Your task to perform on an android device: move an email to a new category in the gmail app Image 0: 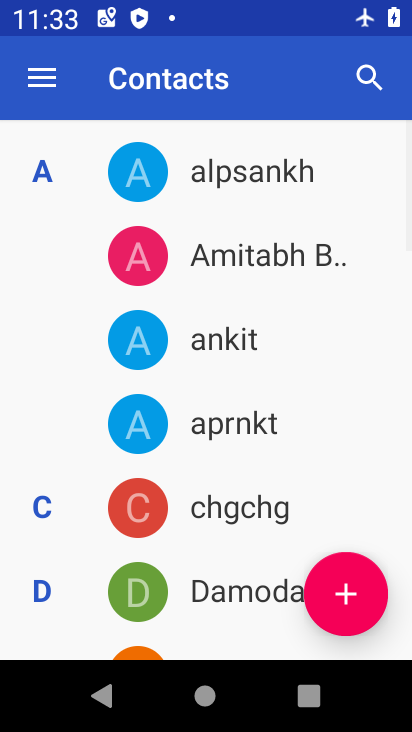
Step 0: press home button
Your task to perform on an android device: move an email to a new category in the gmail app Image 1: 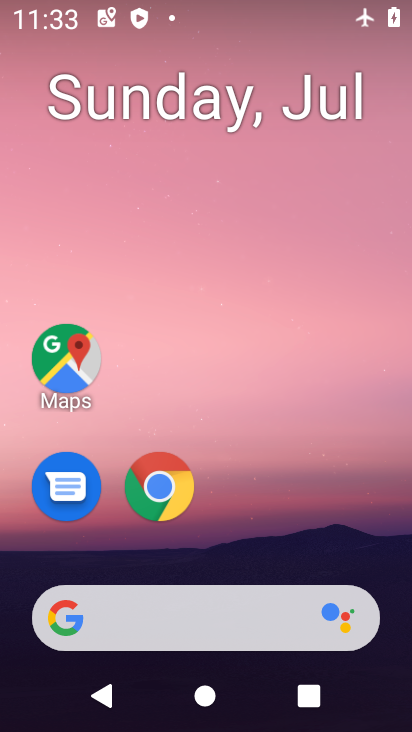
Step 1: drag from (384, 559) to (409, 107)
Your task to perform on an android device: move an email to a new category in the gmail app Image 2: 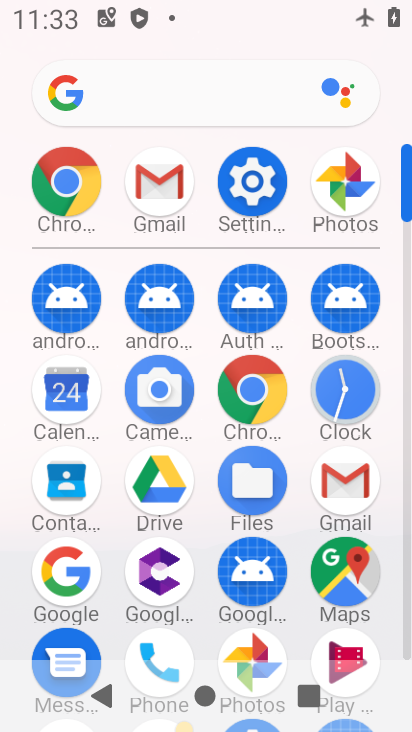
Step 2: click (349, 476)
Your task to perform on an android device: move an email to a new category in the gmail app Image 3: 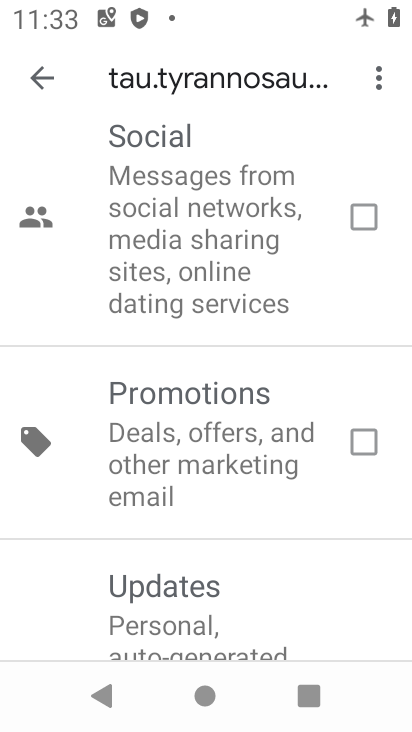
Step 3: press back button
Your task to perform on an android device: move an email to a new category in the gmail app Image 4: 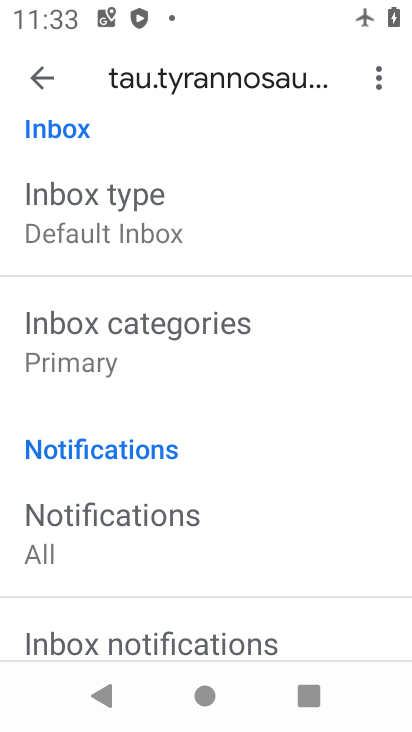
Step 4: press back button
Your task to perform on an android device: move an email to a new category in the gmail app Image 5: 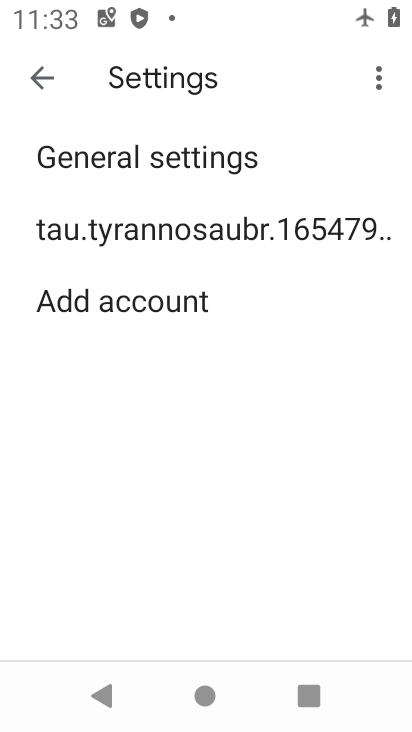
Step 5: press back button
Your task to perform on an android device: move an email to a new category in the gmail app Image 6: 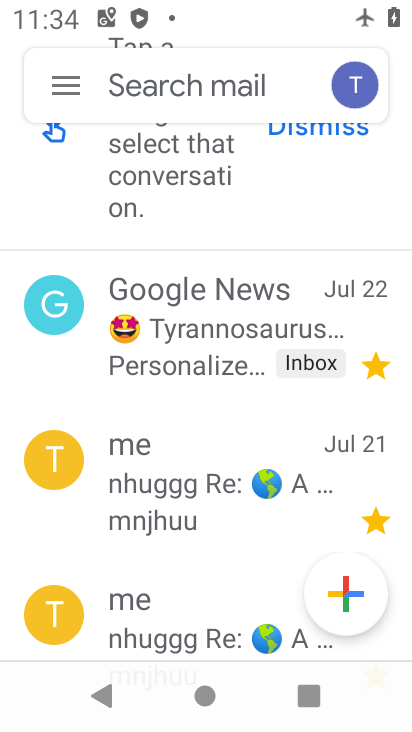
Step 6: click (225, 344)
Your task to perform on an android device: move an email to a new category in the gmail app Image 7: 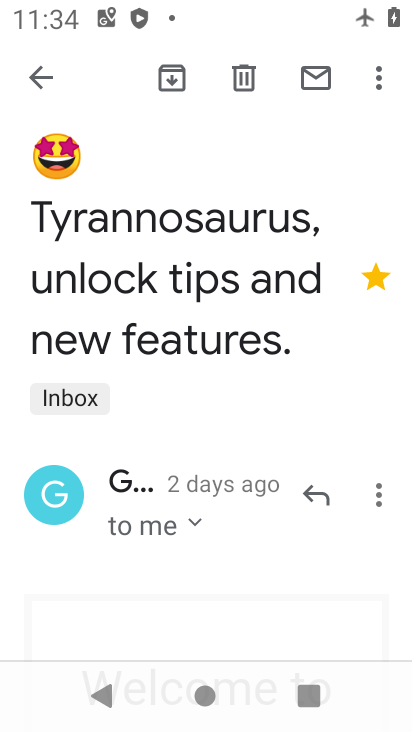
Step 7: click (375, 84)
Your task to perform on an android device: move an email to a new category in the gmail app Image 8: 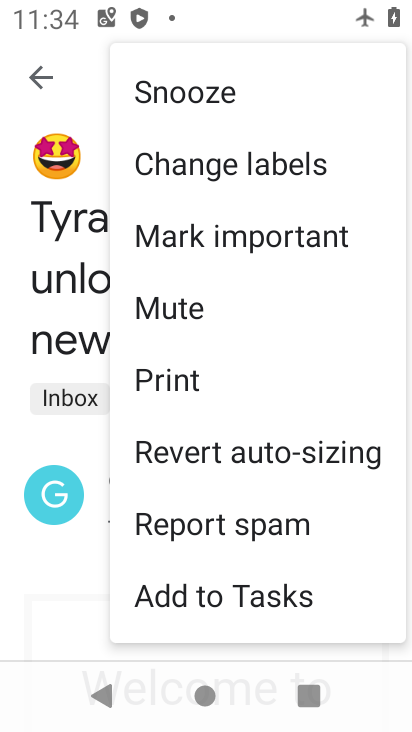
Step 8: click (58, 561)
Your task to perform on an android device: move an email to a new category in the gmail app Image 9: 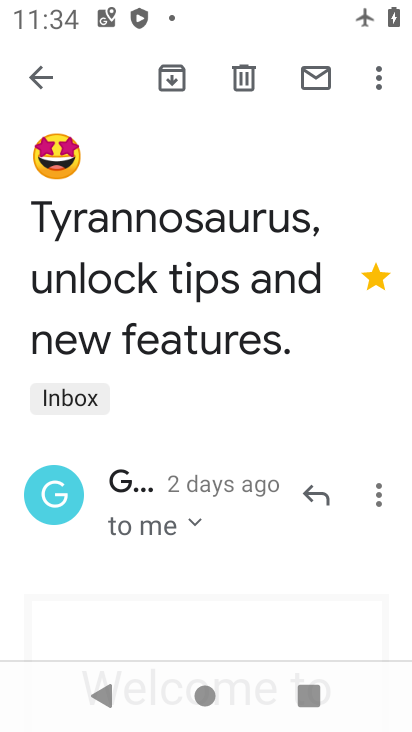
Step 9: click (381, 498)
Your task to perform on an android device: move an email to a new category in the gmail app Image 10: 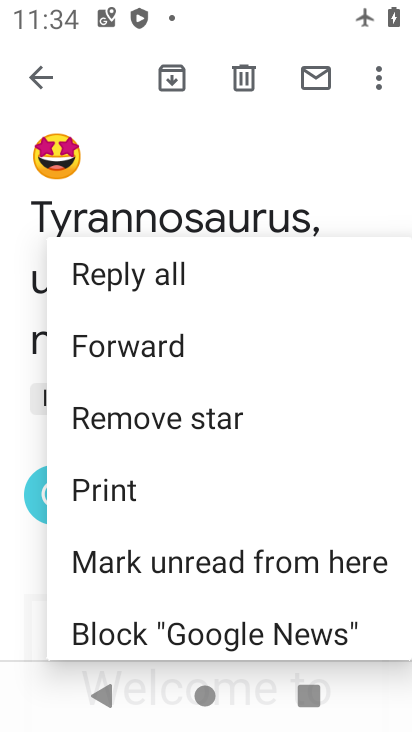
Step 10: click (23, 550)
Your task to perform on an android device: move an email to a new category in the gmail app Image 11: 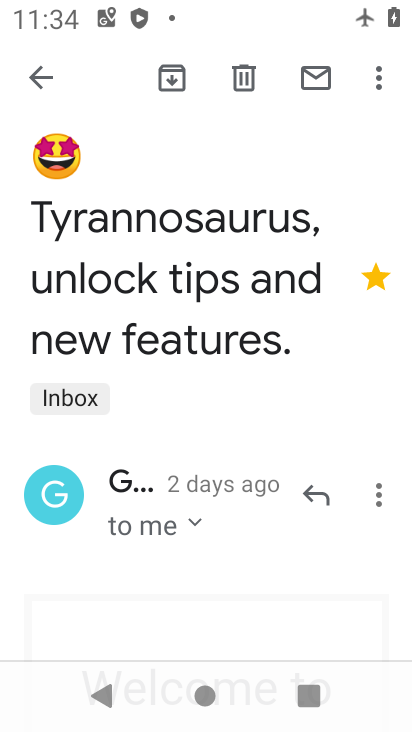
Step 11: click (379, 87)
Your task to perform on an android device: move an email to a new category in the gmail app Image 12: 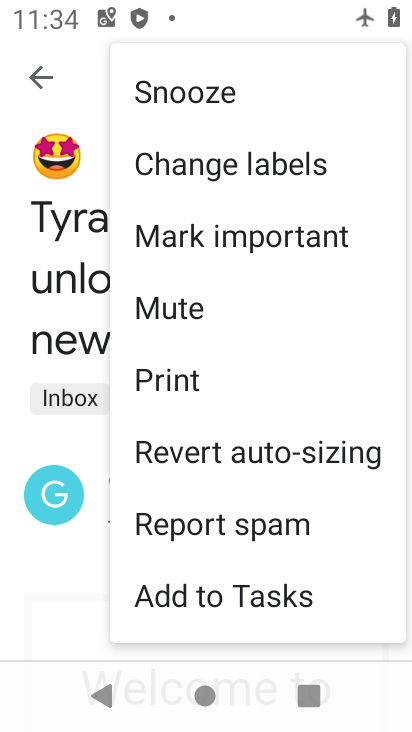
Step 12: drag from (314, 378) to (307, 261)
Your task to perform on an android device: move an email to a new category in the gmail app Image 13: 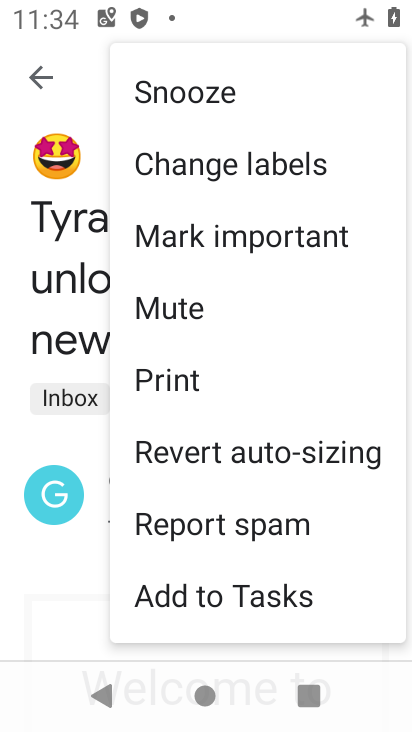
Step 13: click (63, 570)
Your task to perform on an android device: move an email to a new category in the gmail app Image 14: 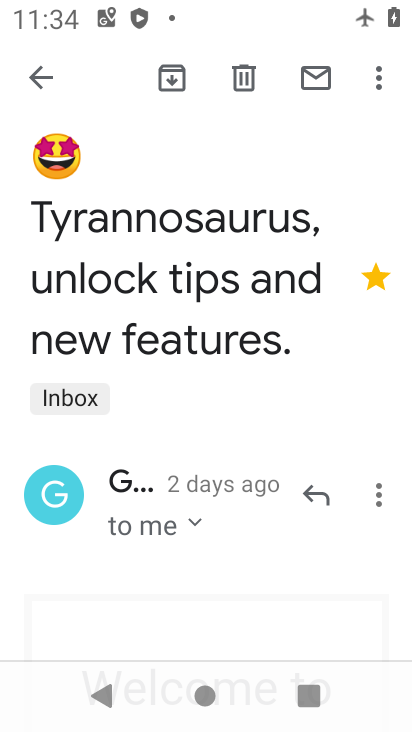
Step 14: click (27, 75)
Your task to perform on an android device: move an email to a new category in the gmail app Image 15: 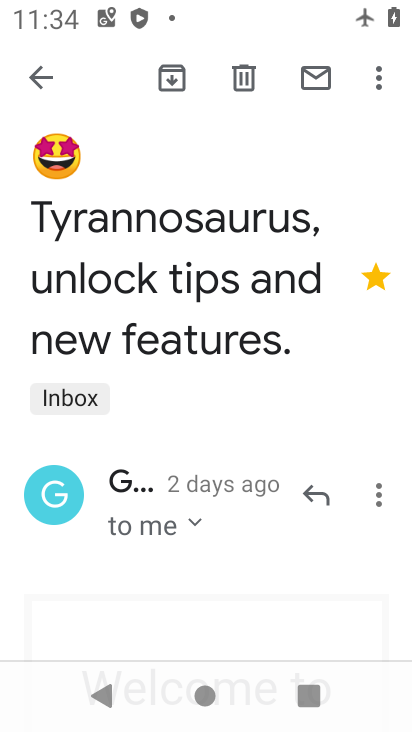
Step 15: click (41, 75)
Your task to perform on an android device: move an email to a new category in the gmail app Image 16: 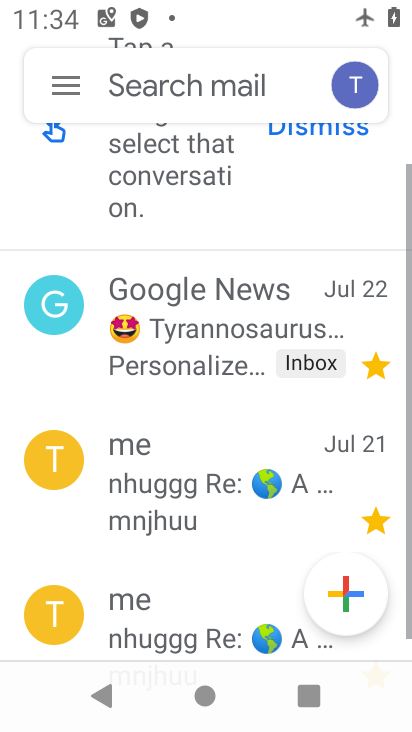
Step 16: click (150, 485)
Your task to perform on an android device: move an email to a new category in the gmail app Image 17: 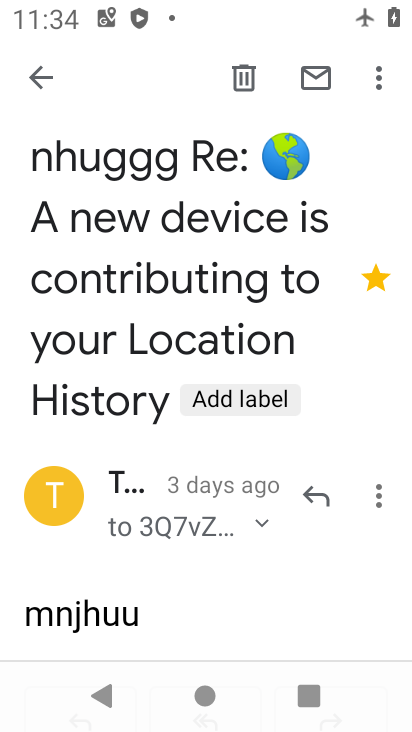
Step 17: click (378, 85)
Your task to perform on an android device: move an email to a new category in the gmail app Image 18: 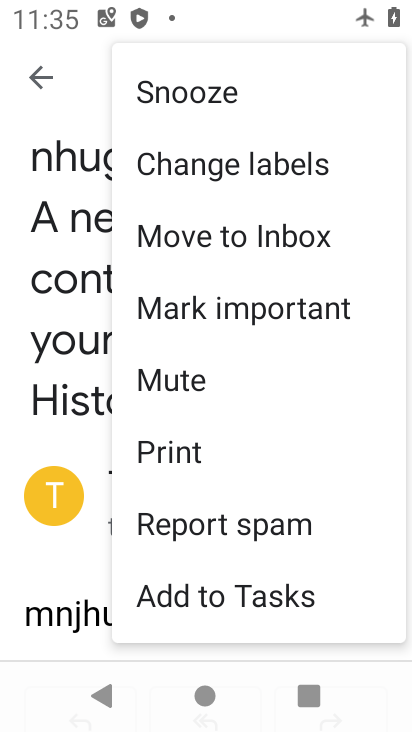
Step 18: click (340, 244)
Your task to perform on an android device: move an email to a new category in the gmail app Image 19: 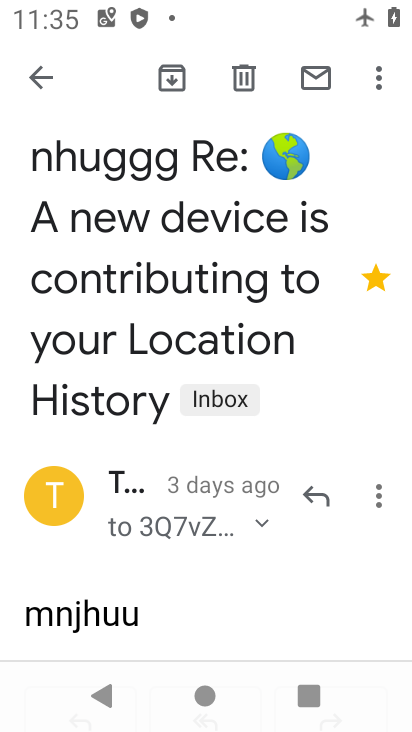
Step 19: task complete